Your task to perform on an android device: change text size in settings app Image 0: 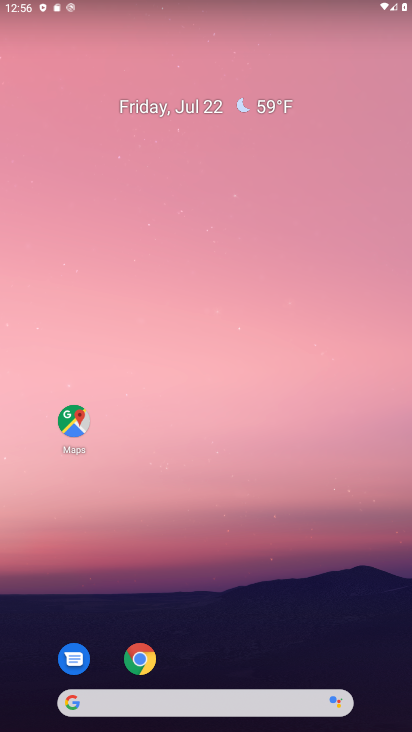
Step 0: drag from (201, 643) to (251, 187)
Your task to perform on an android device: change text size in settings app Image 1: 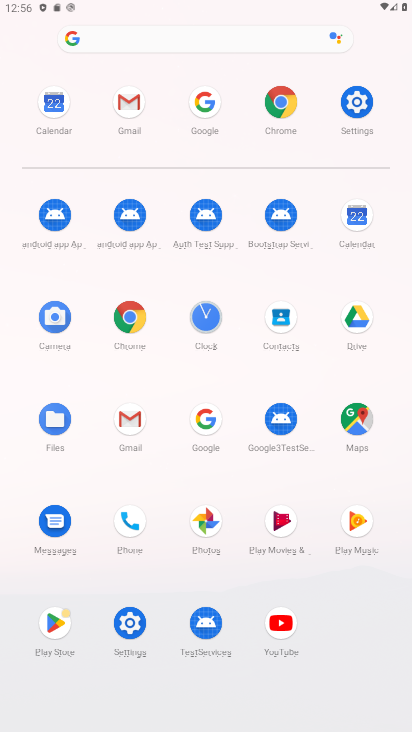
Step 1: click (339, 97)
Your task to perform on an android device: change text size in settings app Image 2: 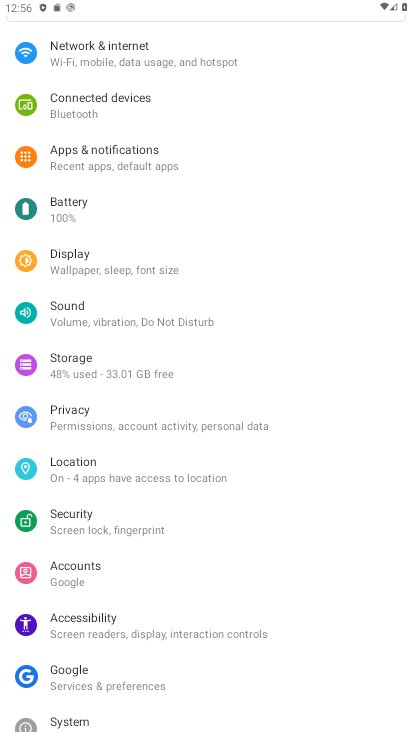
Step 2: click (133, 271)
Your task to perform on an android device: change text size in settings app Image 3: 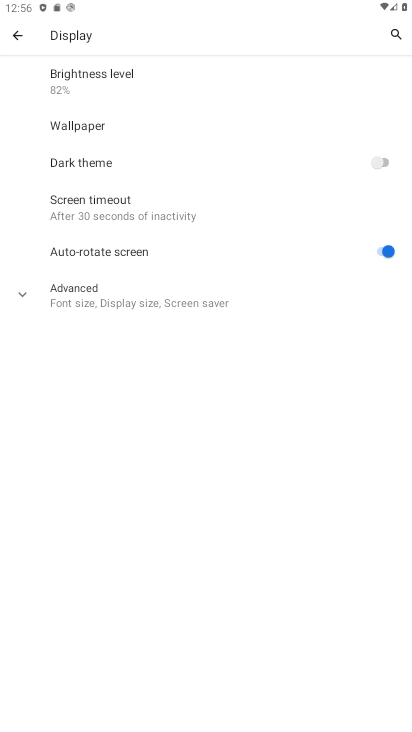
Step 3: click (122, 287)
Your task to perform on an android device: change text size in settings app Image 4: 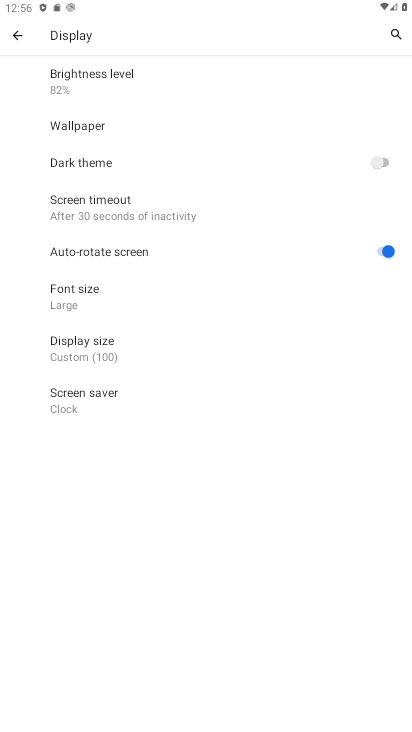
Step 4: click (98, 300)
Your task to perform on an android device: change text size in settings app Image 5: 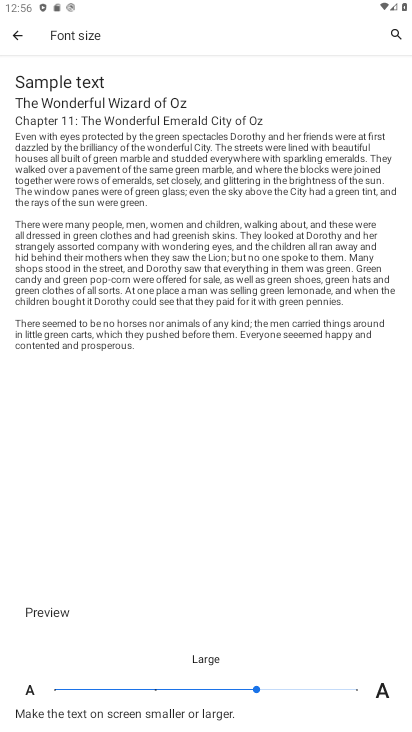
Step 5: click (339, 693)
Your task to perform on an android device: change text size in settings app Image 6: 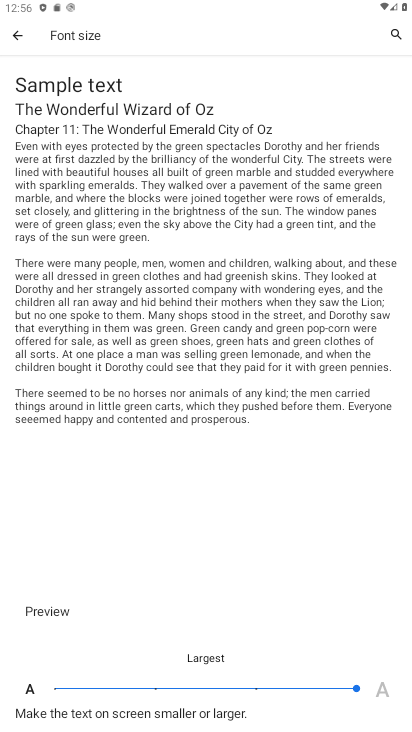
Step 6: task complete